Your task to perform on an android device: Go to eBay Image 0: 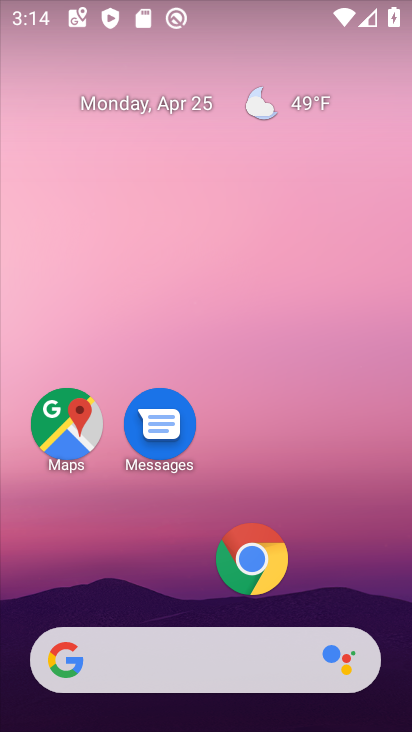
Step 0: click (244, 566)
Your task to perform on an android device: Go to eBay Image 1: 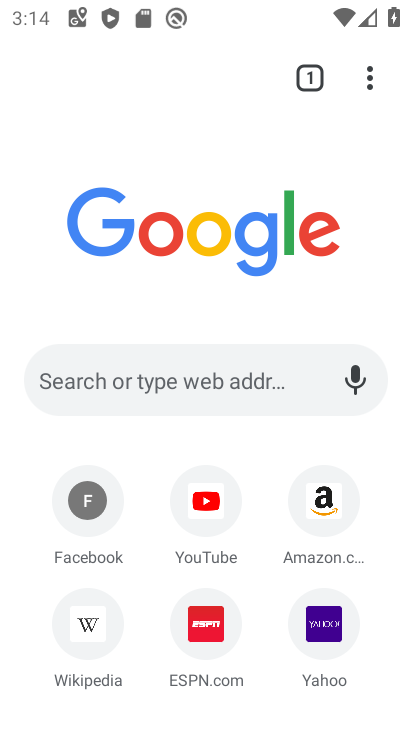
Step 1: click (187, 392)
Your task to perform on an android device: Go to eBay Image 2: 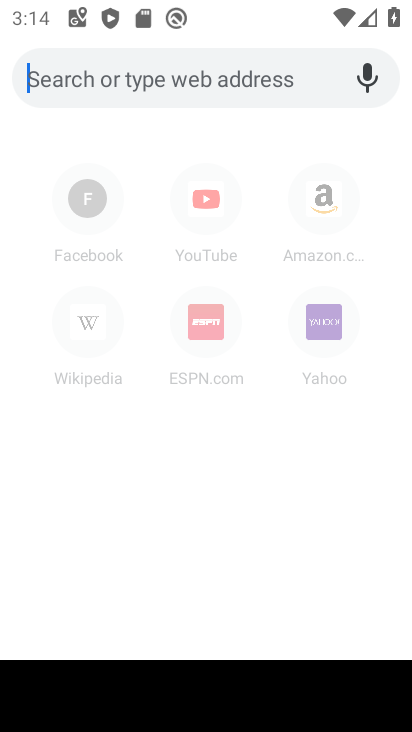
Step 2: type "ebay"
Your task to perform on an android device: Go to eBay Image 3: 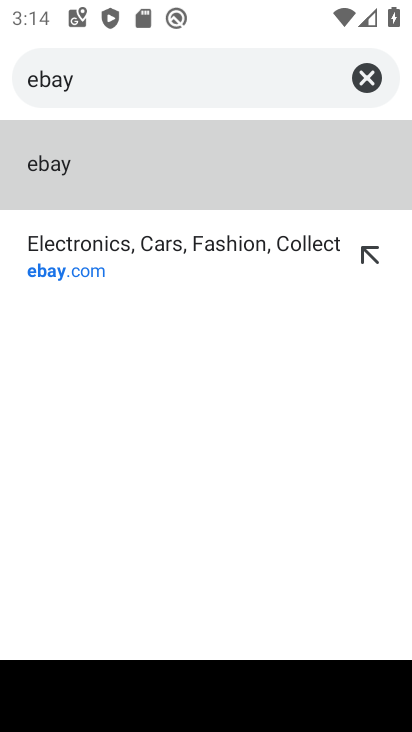
Step 3: click (109, 189)
Your task to perform on an android device: Go to eBay Image 4: 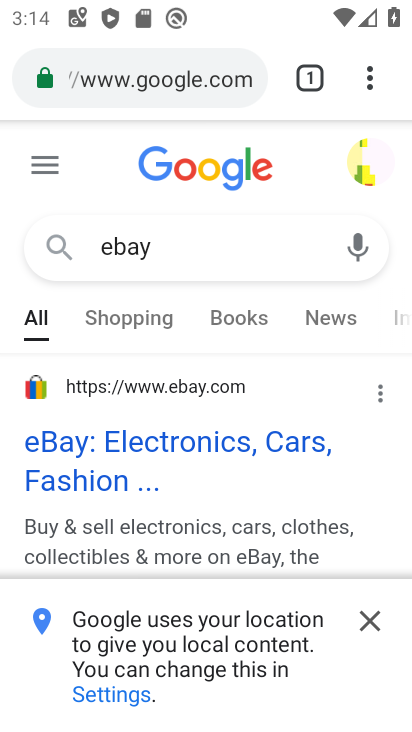
Step 4: click (371, 627)
Your task to perform on an android device: Go to eBay Image 5: 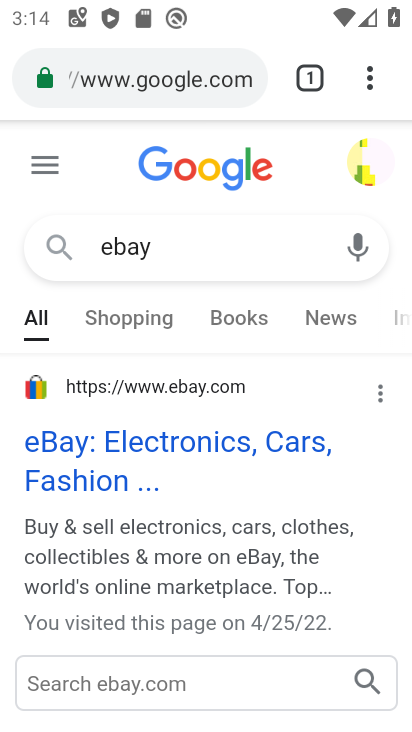
Step 5: click (212, 452)
Your task to perform on an android device: Go to eBay Image 6: 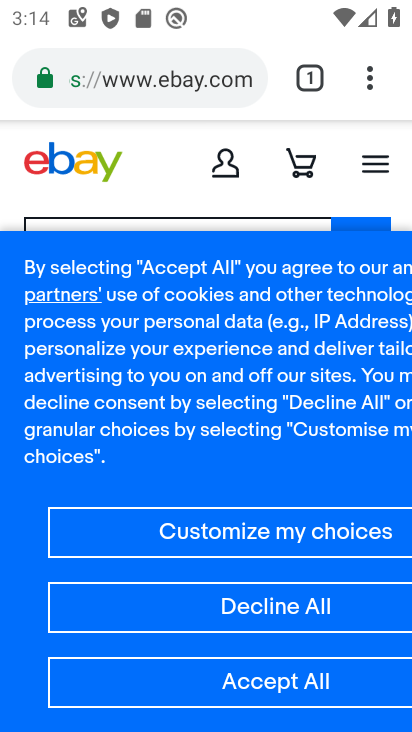
Step 6: task complete